Your task to perform on an android device: Go to CNN.com Image 0: 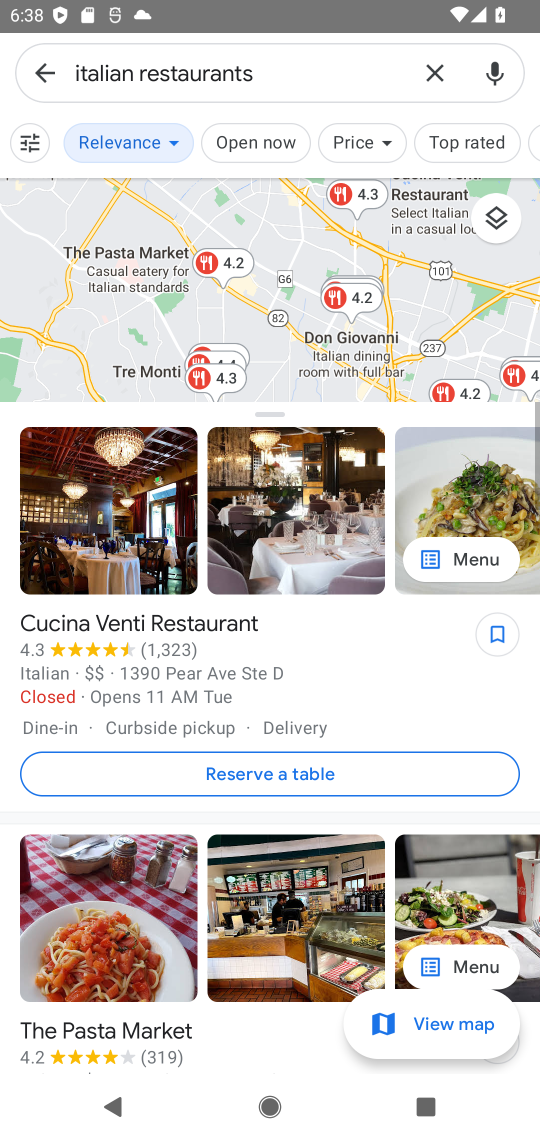
Step 0: press home button
Your task to perform on an android device: Go to CNN.com Image 1: 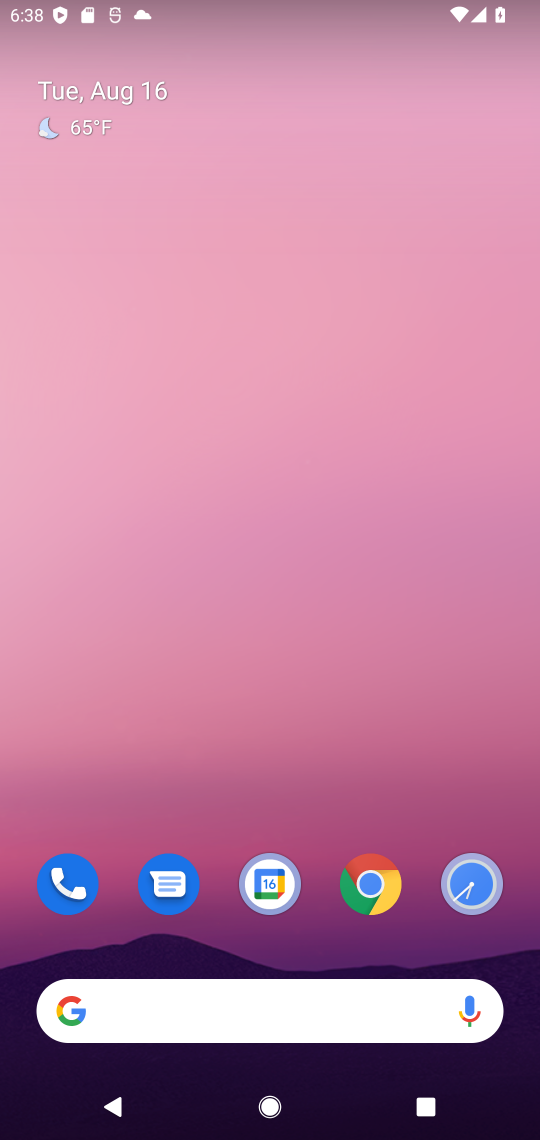
Step 1: click (75, 1023)
Your task to perform on an android device: Go to CNN.com Image 2: 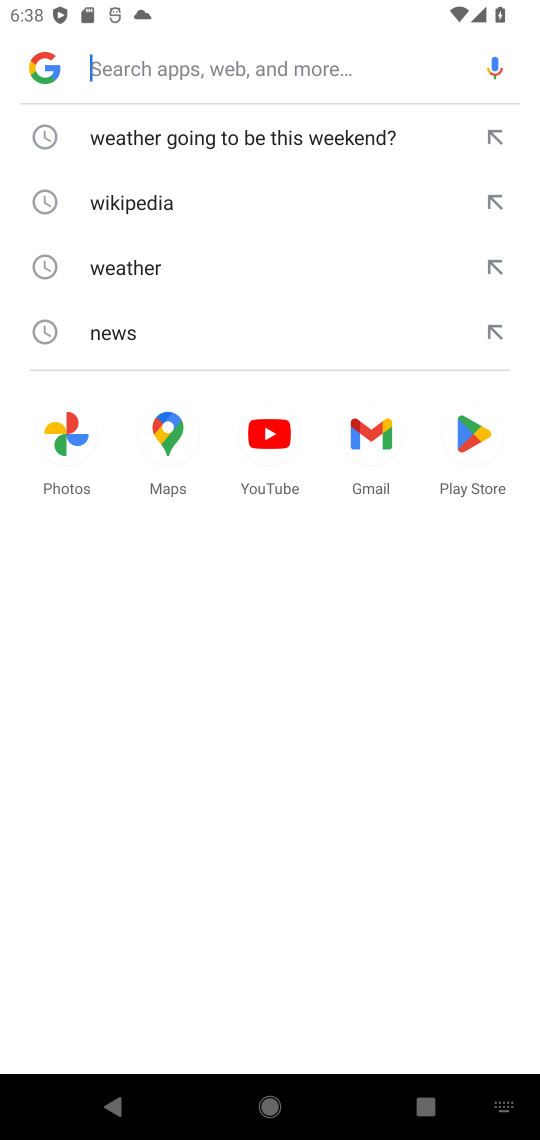
Step 2: type "CNN.com"
Your task to perform on an android device: Go to CNN.com Image 3: 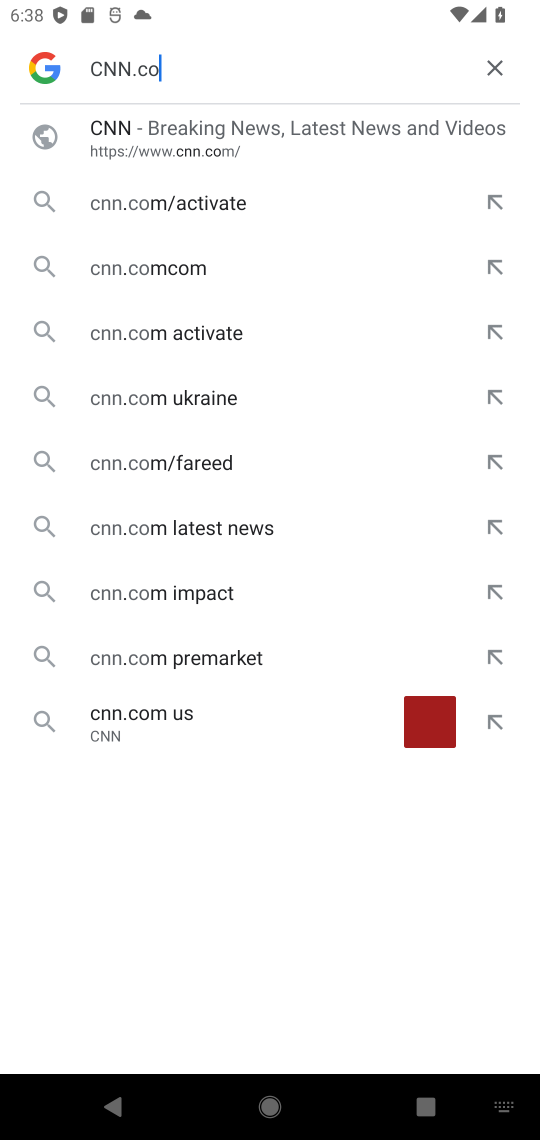
Step 3: press enter
Your task to perform on an android device: Go to CNN.com Image 4: 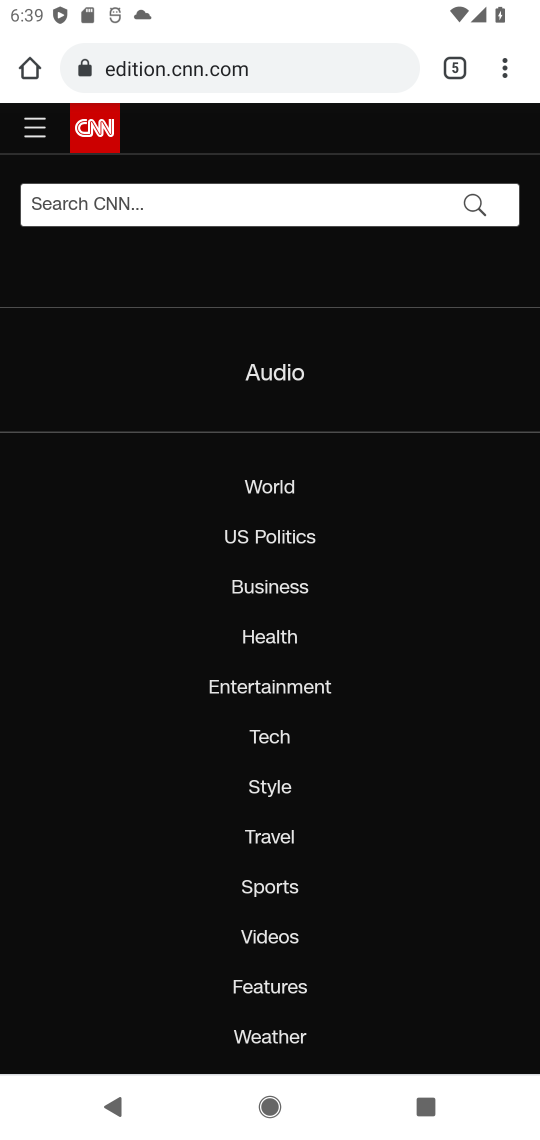
Step 4: task complete